Your task to perform on an android device: Go to Yahoo.com Image 0: 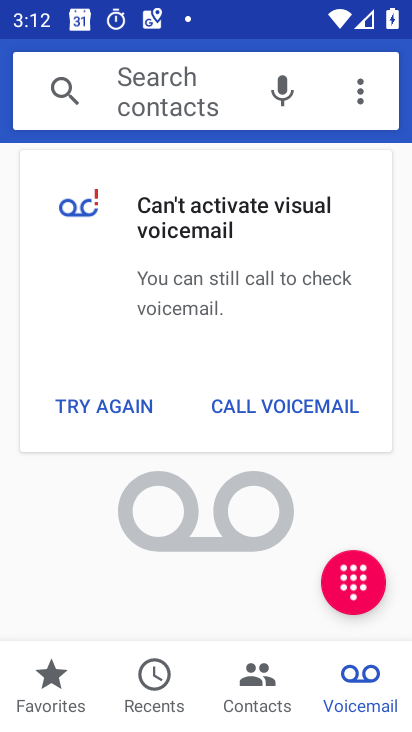
Step 0: press home button
Your task to perform on an android device: Go to Yahoo.com Image 1: 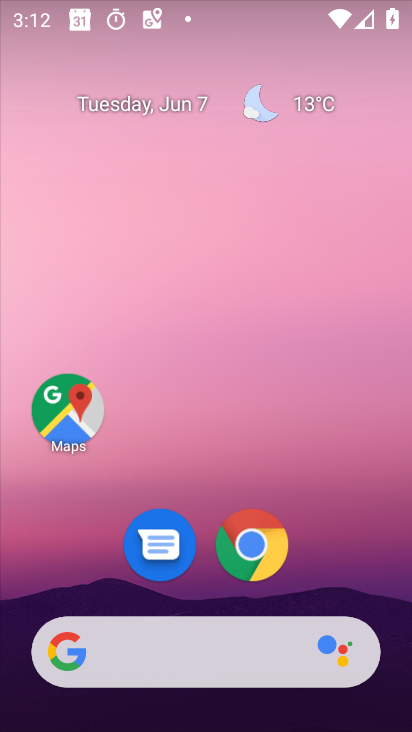
Step 1: click (244, 545)
Your task to perform on an android device: Go to Yahoo.com Image 2: 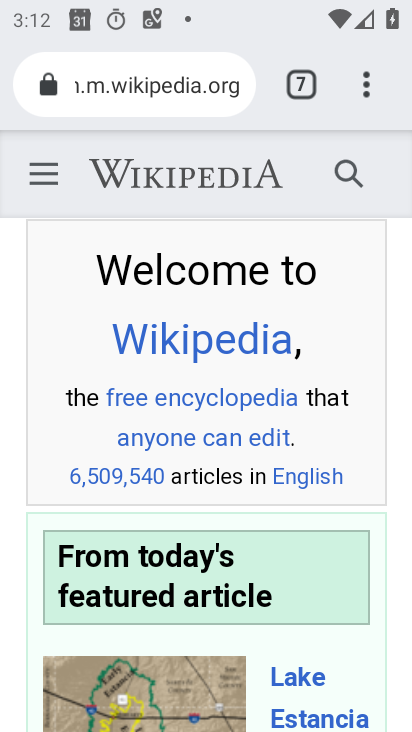
Step 2: click (312, 90)
Your task to perform on an android device: Go to Yahoo.com Image 3: 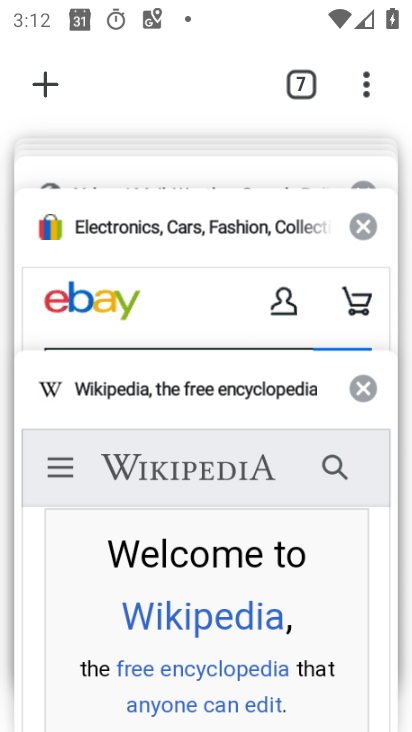
Step 3: drag from (182, 261) to (195, 708)
Your task to perform on an android device: Go to Yahoo.com Image 4: 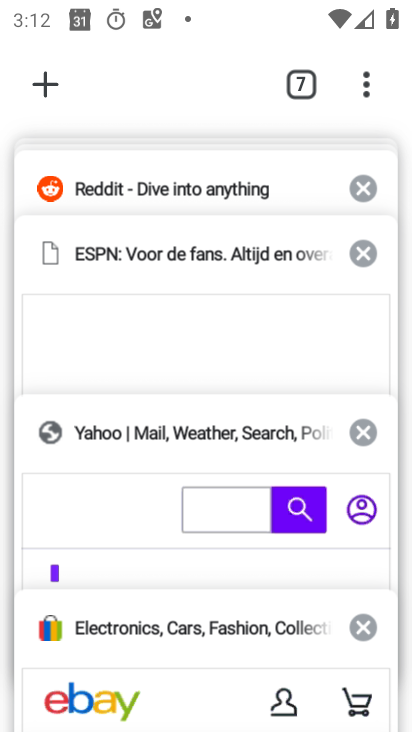
Step 4: click (120, 431)
Your task to perform on an android device: Go to Yahoo.com Image 5: 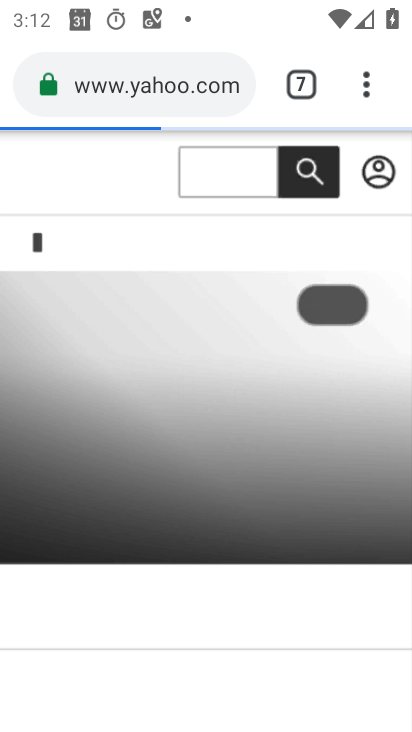
Step 5: task complete